Your task to perform on an android device: change timer sound Image 0: 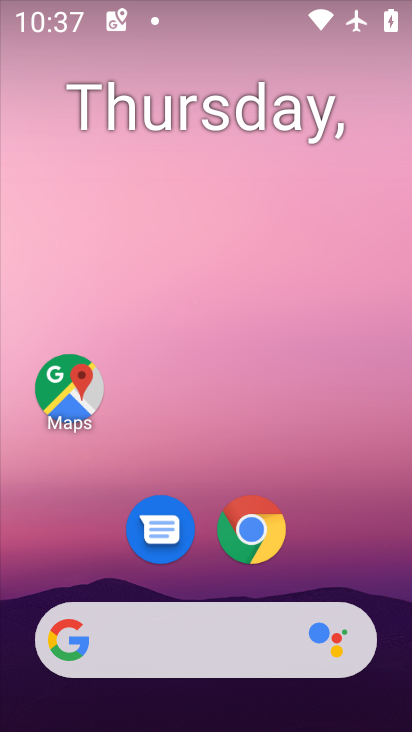
Step 0: drag from (293, 577) to (203, 88)
Your task to perform on an android device: change timer sound Image 1: 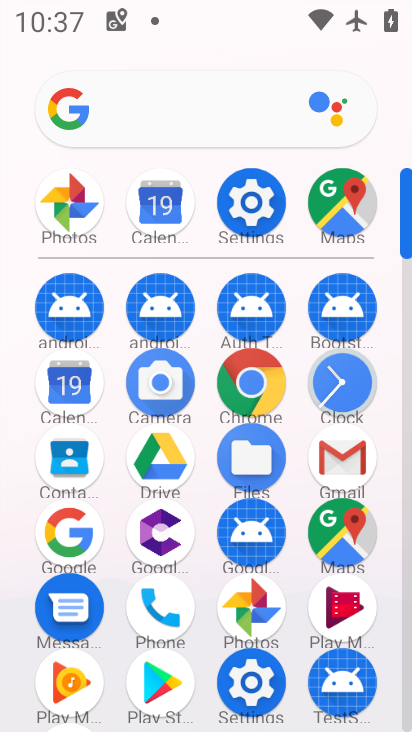
Step 1: click (324, 379)
Your task to perform on an android device: change timer sound Image 2: 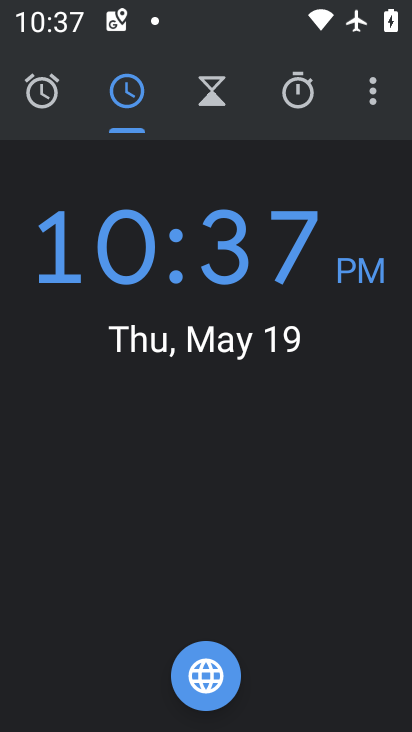
Step 2: click (367, 80)
Your task to perform on an android device: change timer sound Image 3: 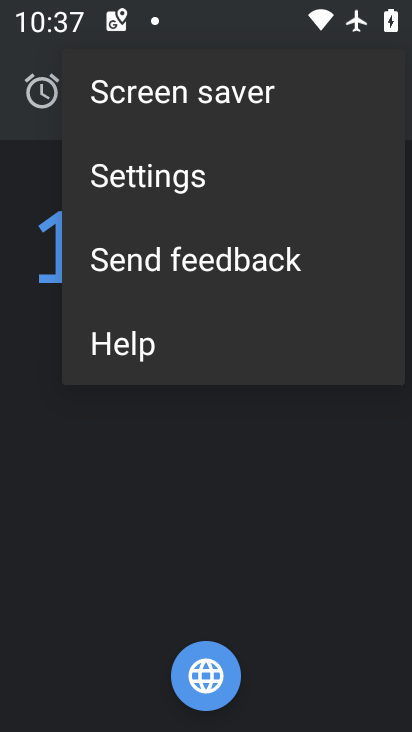
Step 3: click (246, 177)
Your task to perform on an android device: change timer sound Image 4: 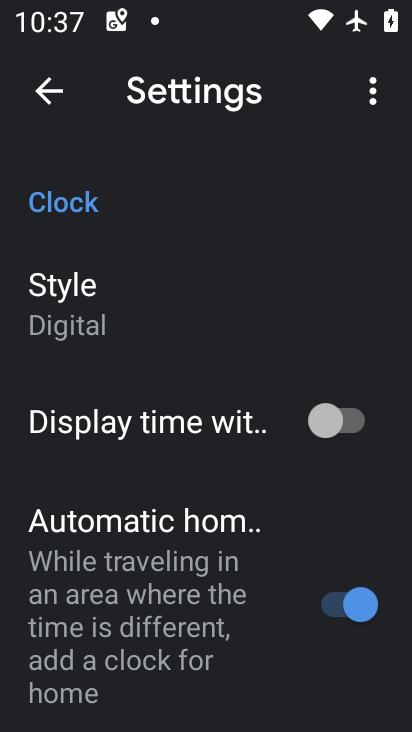
Step 4: drag from (164, 566) to (136, 341)
Your task to perform on an android device: change timer sound Image 5: 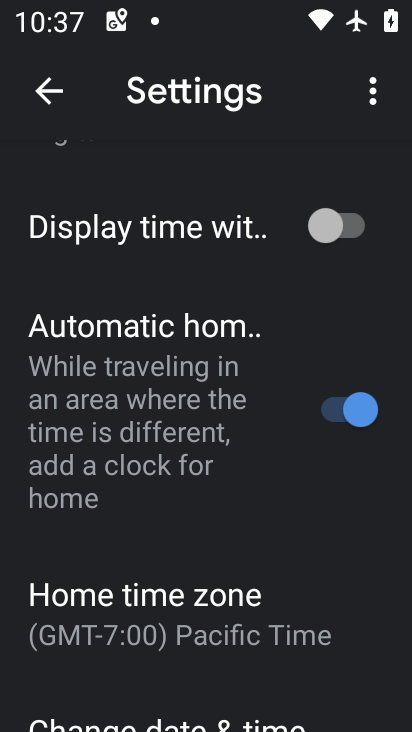
Step 5: drag from (163, 562) to (165, 358)
Your task to perform on an android device: change timer sound Image 6: 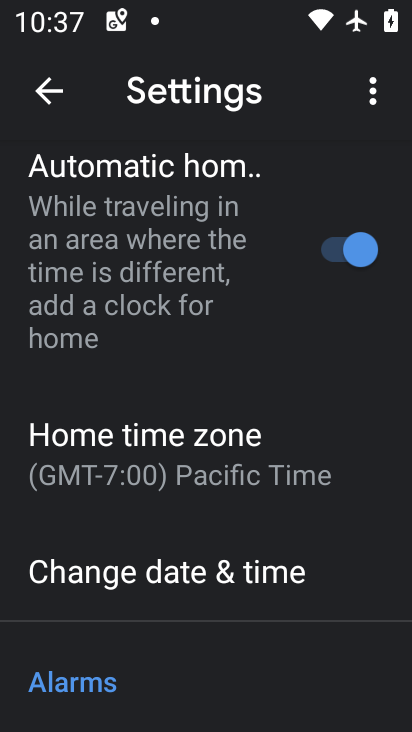
Step 6: drag from (172, 632) to (167, 452)
Your task to perform on an android device: change timer sound Image 7: 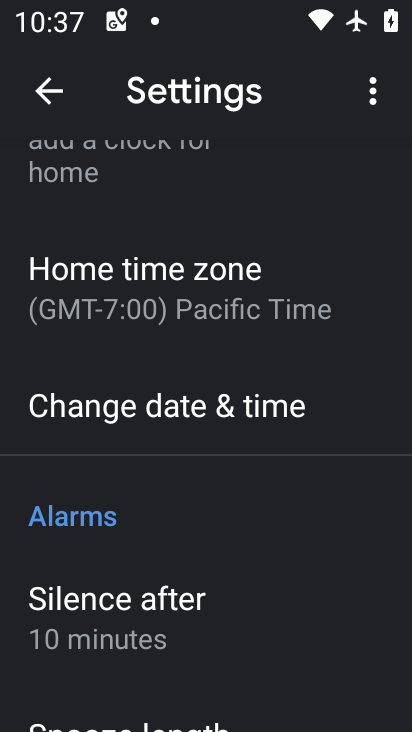
Step 7: drag from (215, 630) to (170, 456)
Your task to perform on an android device: change timer sound Image 8: 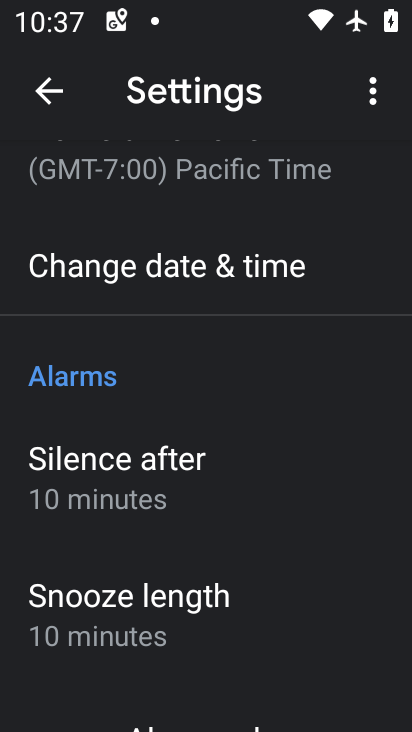
Step 8: drag from (218, 628) to (195, 442)
Your task to perform on an android device: change timer sound Image 9: 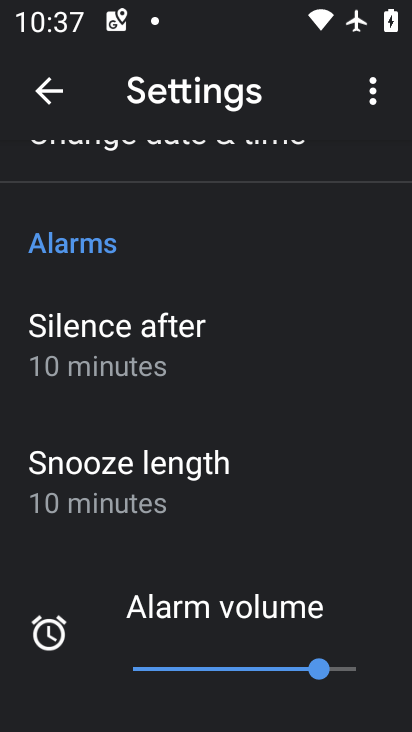
Step 9: drag from (238, 629) to (242, 440)
Your task to perform on an android device: change timer sound Image 10: 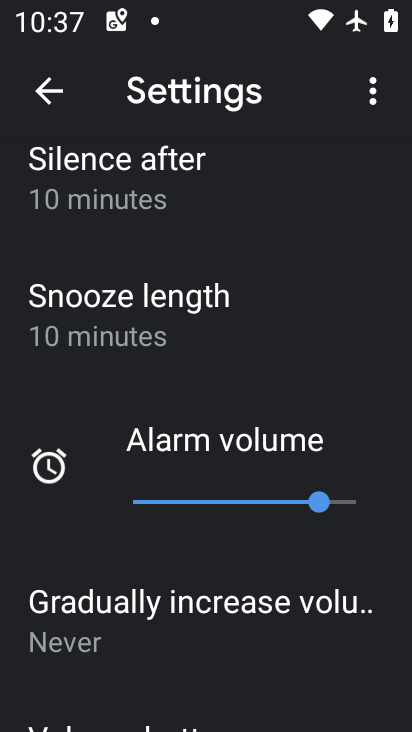
Step 10: drag from (261, 687) to (263, 438)
Your task to perform on an android device: change timer sound Image 11: 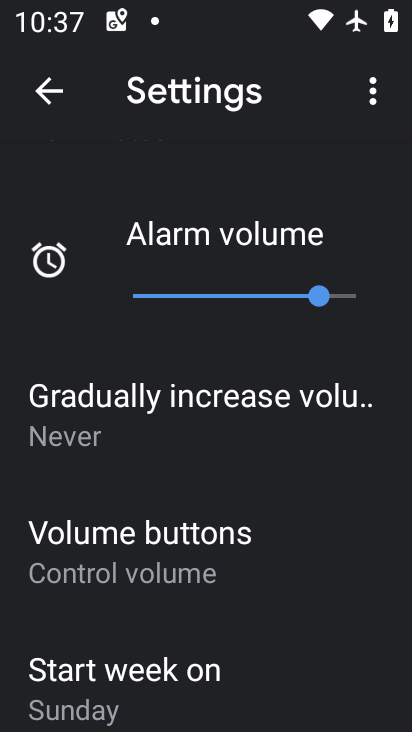
Step 11: drag from (292, 638) to (283, 360)
Your task to perform on an android device: change timer sound Image 12: 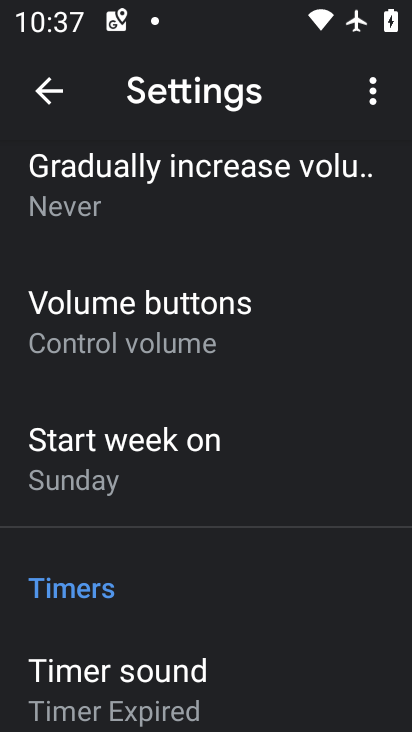
Step 12: drag from (307, 654) to (351, 413)
Your task to perform on an android device: change timer sound Image 13: 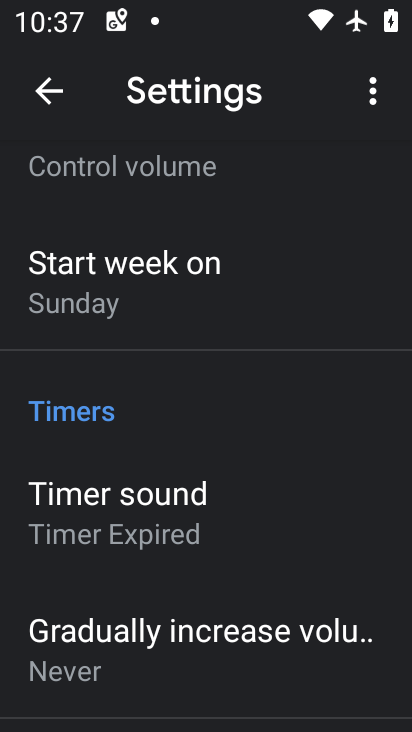
Step 13: click (221, 532)
Your task to perform on an android device: change timer sound Image 14: 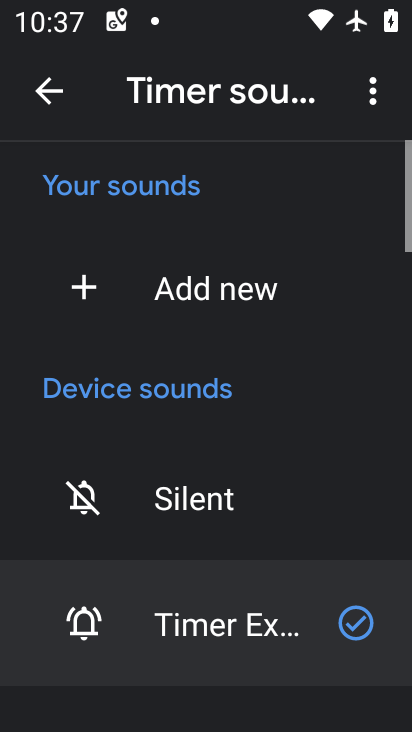
Step 14: drag from (223, 619) to (234, 383)
Your task to perform on an android device: change timer sound Image 15: 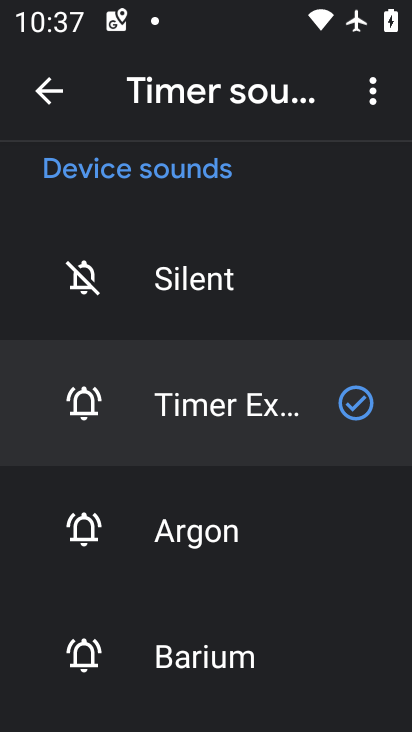
Step 15: click (227, 547)
Your task to perform on an android device: change timer sound Image 16: 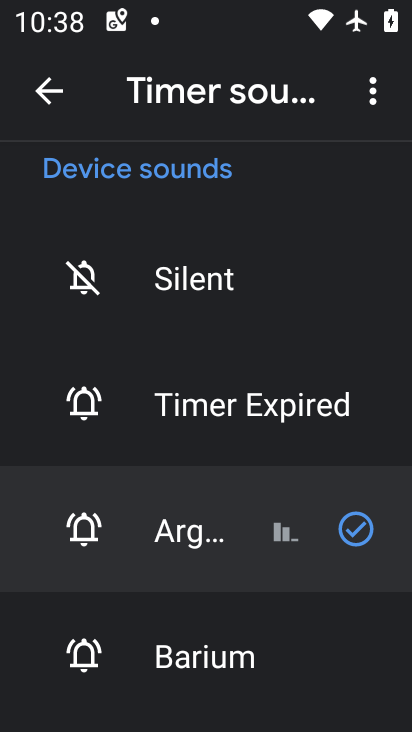
Step 16: task complete